Your task to perform on an android device: Go to Amazon Image 0: 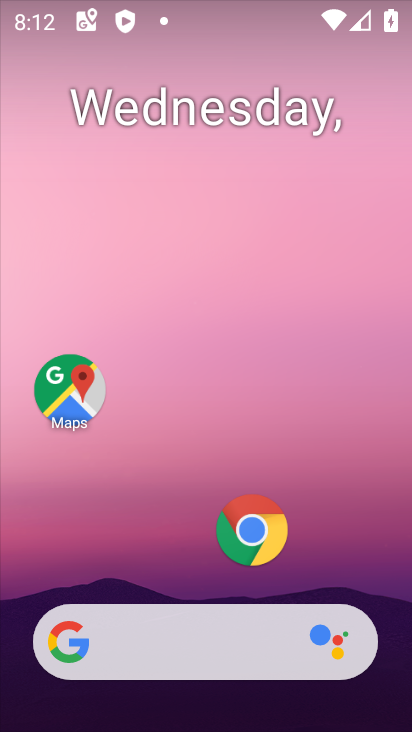
Step 0: click (243, 524)
Your task to perform on an android device: Go to Amazon Image 1: 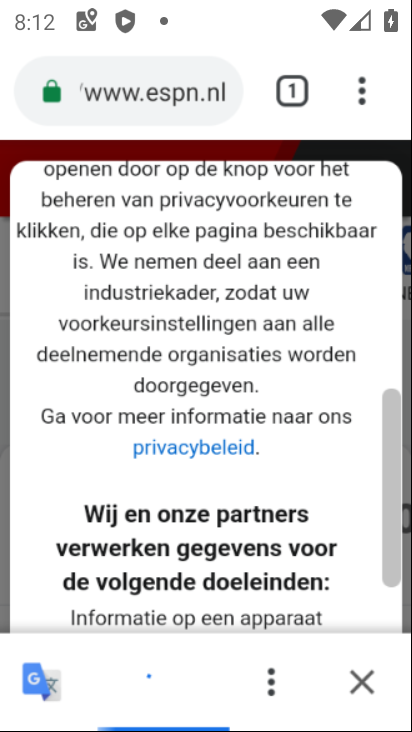
Step 1: click (304, 95)
Your task to perform on an android device: Go to Amazon Image 2: 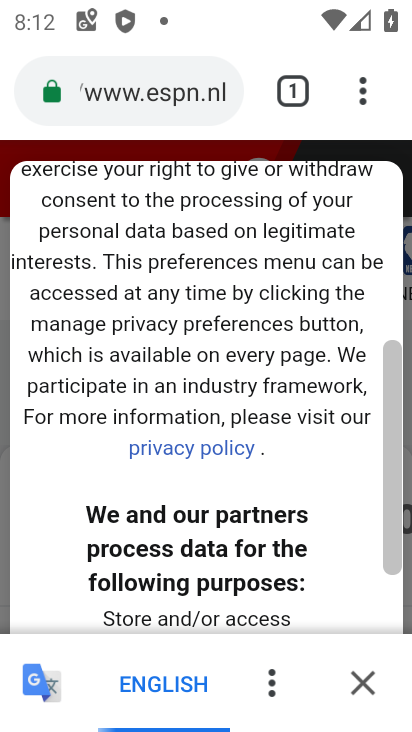
Step 2: click (292, 87)
Your task to perform on an android device: Go to Amazon Image 3: 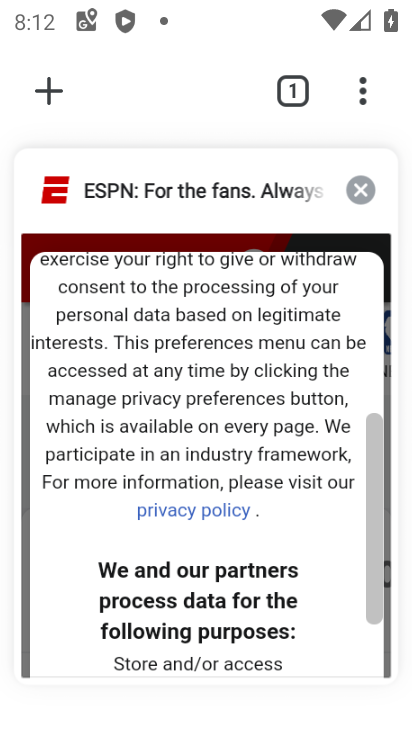
Step 3: click (55, 82)
Your task to perform on an android device: Go to Amazon Image 4: 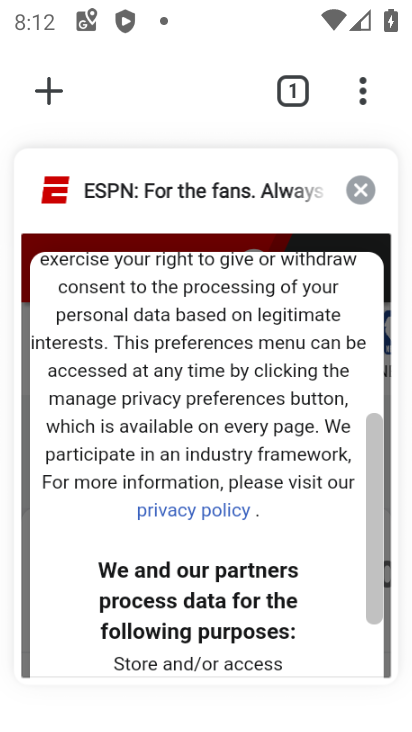
Step 4: click (50, 84)
Your task to perform on an android device: Go to Amazon Image 5: 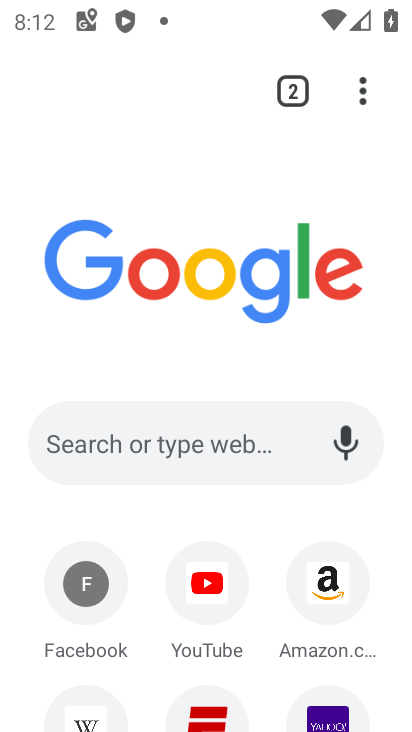
Step 5: click (320, 573)
Your task to perform on an android device: Go to Amazon Image 6: 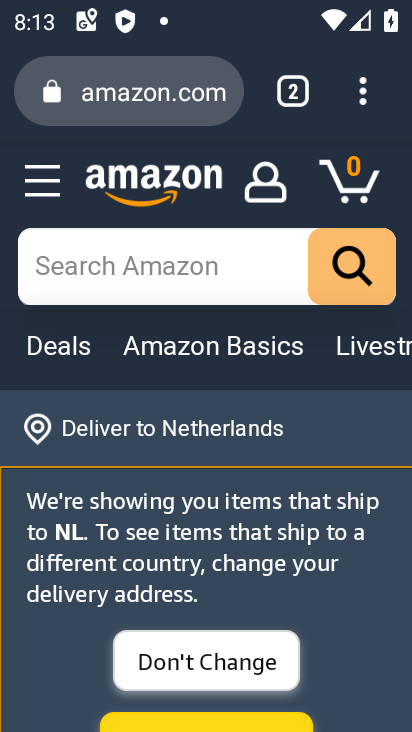
Step 6: task complete